Your task to perform on an android device: add a label to a message in the gmail app Image 0: 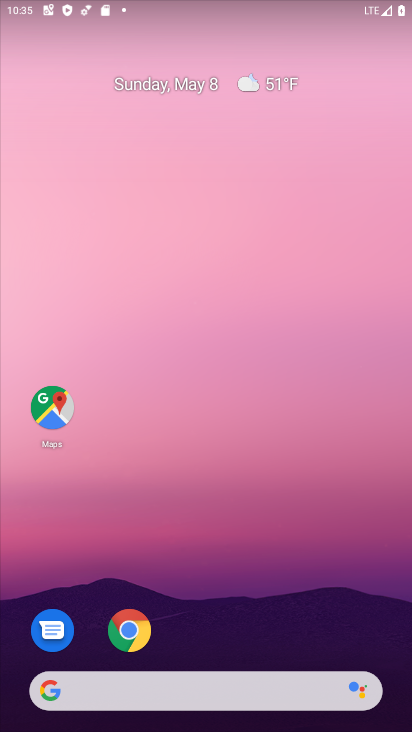
Step 0: drag from (373, 666) to (262, 113)
Your task to perform on an android device: add a label to a message in the gmail app Image 1: 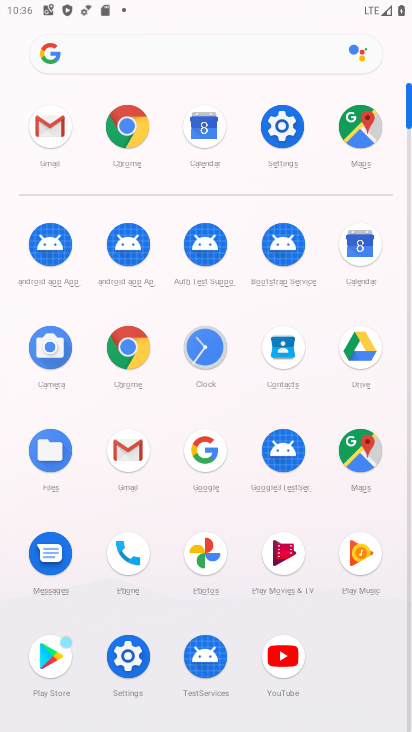
Step 1: click (133, 462)
Your task to perform on an android device: add a label to a message in the gmail app Image 2: 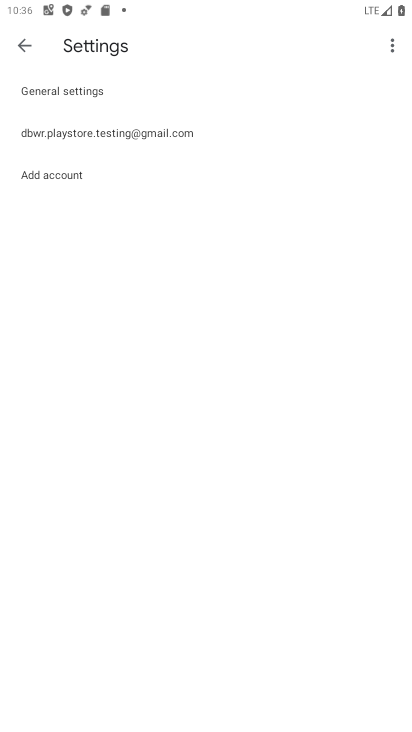
Step 2: click (19, 49)
Your task to perform on an android device: add a label to a message in the gmail app Image 3: 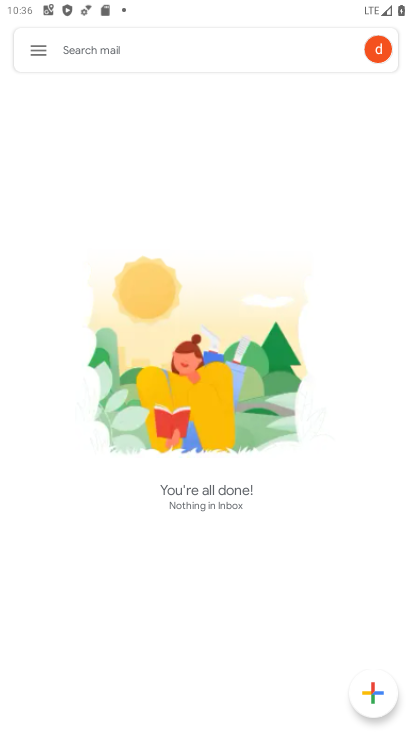
Step 3: task complete